Your task to perform on an android device: check the backup settings in the google photos Image 0: 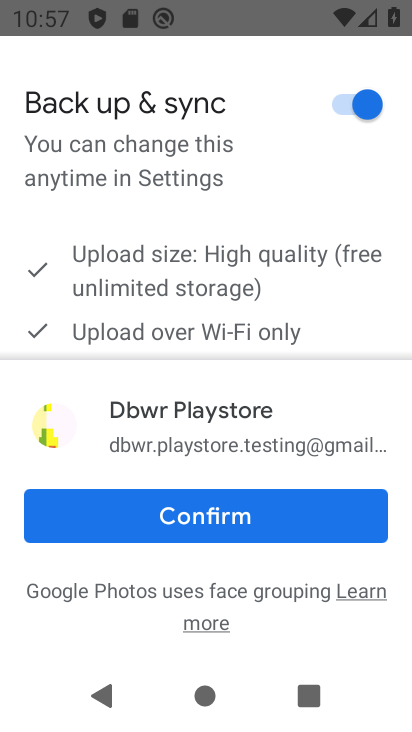
Step 0: press home button
Your task to perform on an android device: check the backup settings in the google photos Image 1: 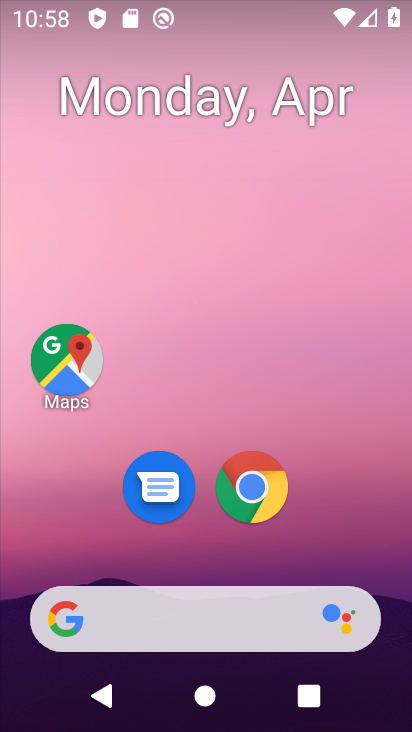
Step 1: drag from (348, 556) to (217, 108)
Your task to perform on an android device: check the backup settings in the google photos Image 2: 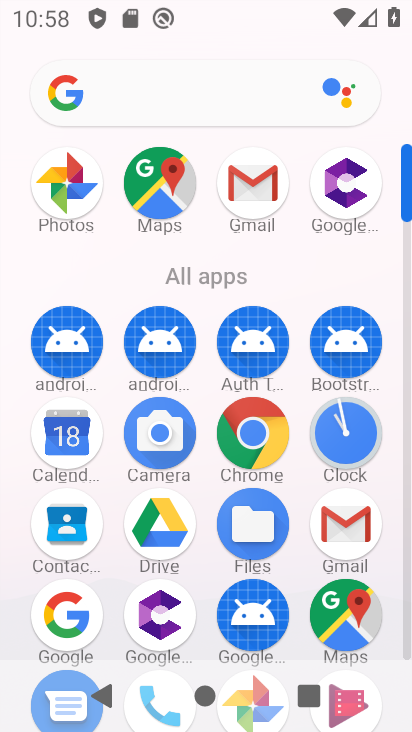
Step 2: click (78, 205)
Your task to perform on an android device: check the backup settings in the google photos Image 3: 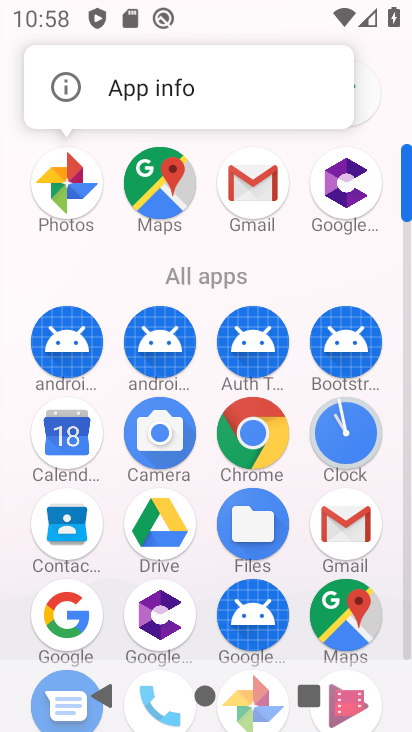
Step 3: click (66, 205)
Your task to perform on an android device: check the backup settings in the google photos Image 4: 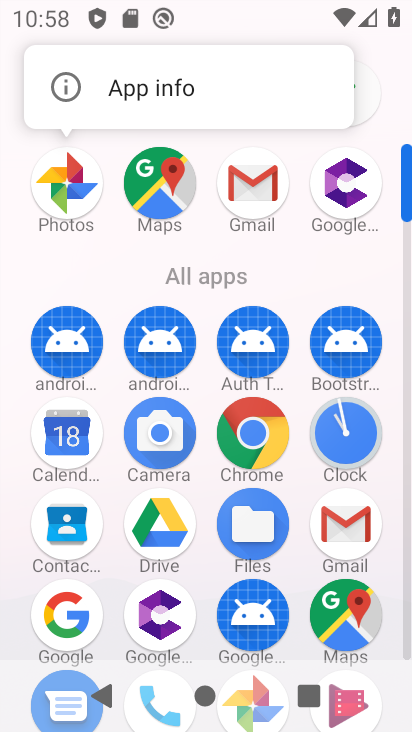
Step 4: click (68, 183)
Your task to perform on an android device: check the backup settings in the google photos Image 5: 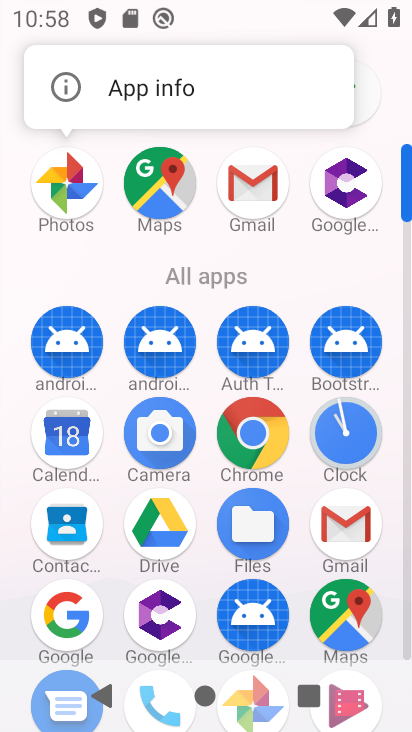
Step 5: click (68, 183)
Your task to perform on an android device: check the backup settings in the google photos Image 6: 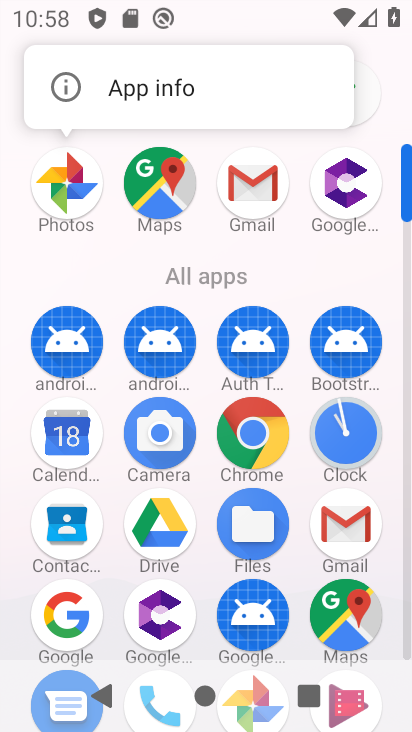
Step 6: click (407, 656)
Your task to perform on an android device: check the backup settings in the google photos Image 7: 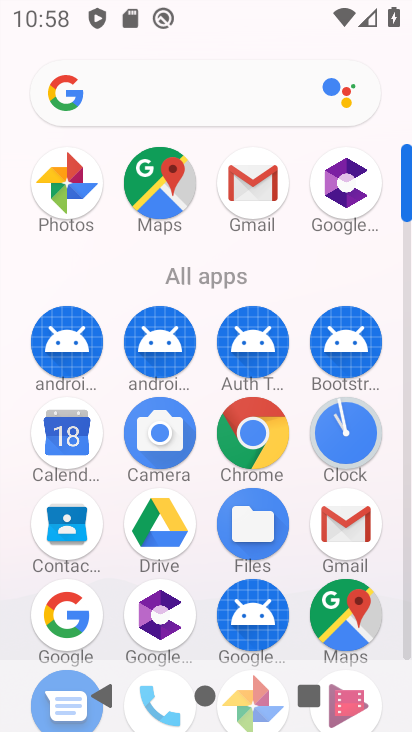
Step 7: click (407, 643)
Your task to perform on an android device: check the backup settings in the google photos Image 8: 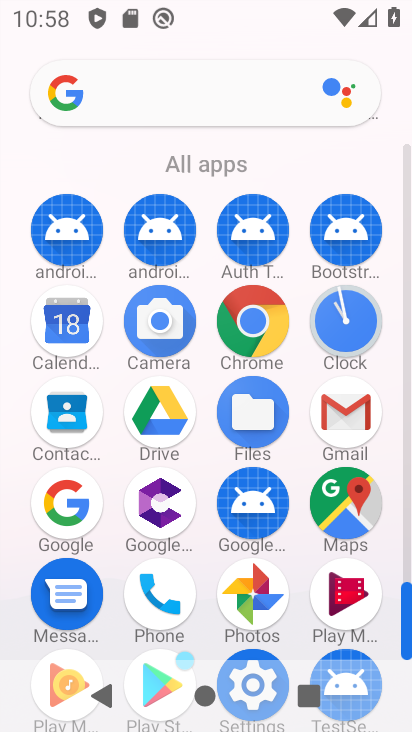
Step 8: click (261, 605)
Your task to perform on an android device: check the backup settings in the google photos Image 9: 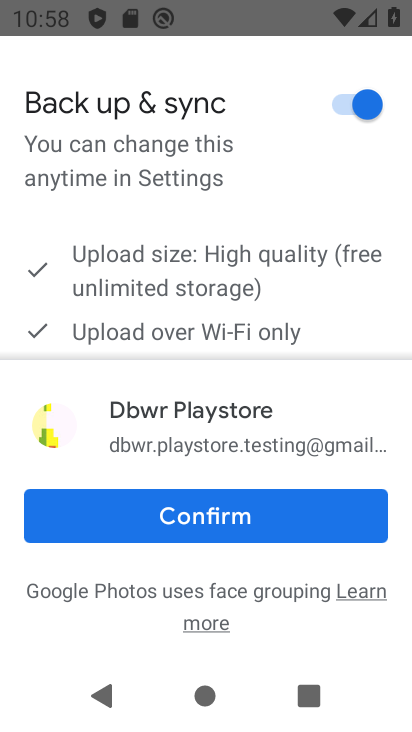
Step 9: click (247, 516)
Your task to perform on an android device: check the backup settings in the google photos Image 10: 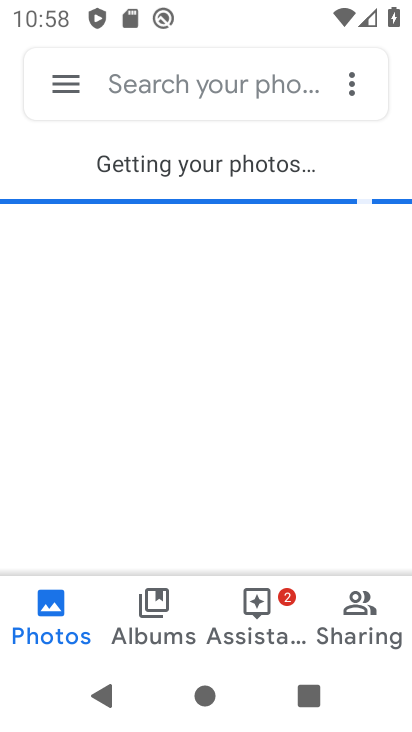
Step 10: click (59, 100)
Your task to perform on an android device: check the backup settings in the google photos Image 11: 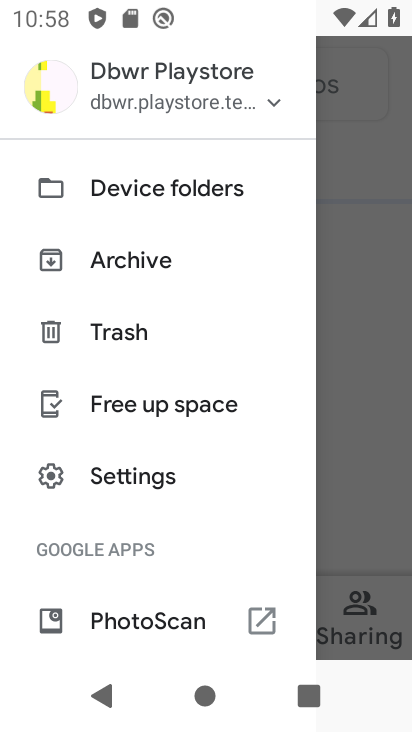
Step 11: click (208, 487)
Your task to perform on an android device: check the backup settings in the google photos Image 12: 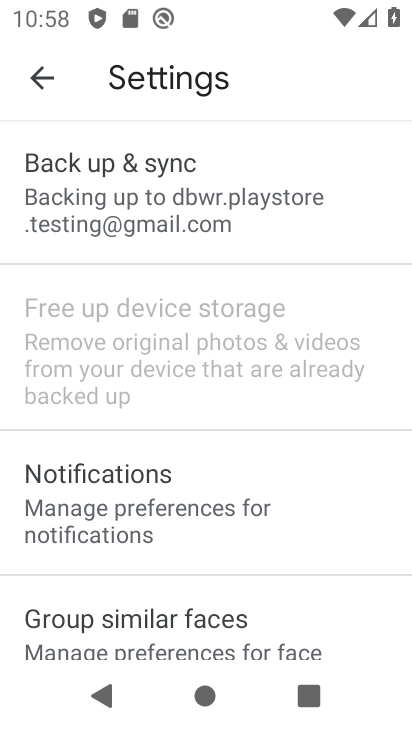
Step 12: click (251, 217)
Your task to perform on an android device: check the backup settings in the google photos Image 13: 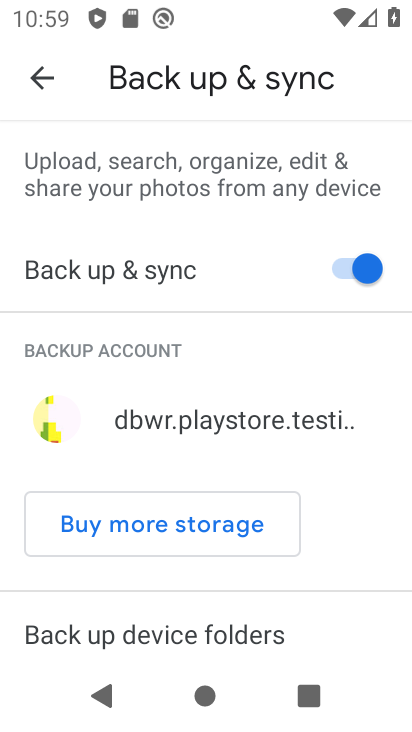
Step 13: task complete